Your task to perform on an android device: toggle notifications settings in the gmail app Image 0: 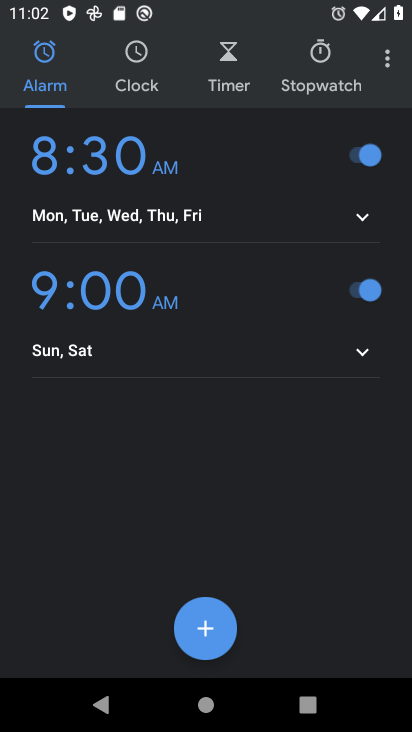
Step 0: press back button
Your task to perform on an android device: toggle notifications settings in the gmail app Image 1: 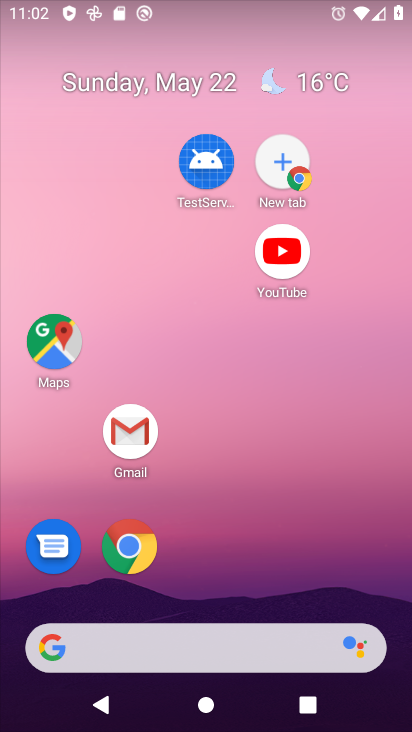
Step 1: drag from (336, 680) to (192, 0)
Your task to perform on an android device: toggle notifications settings in the gmail app Image 2: 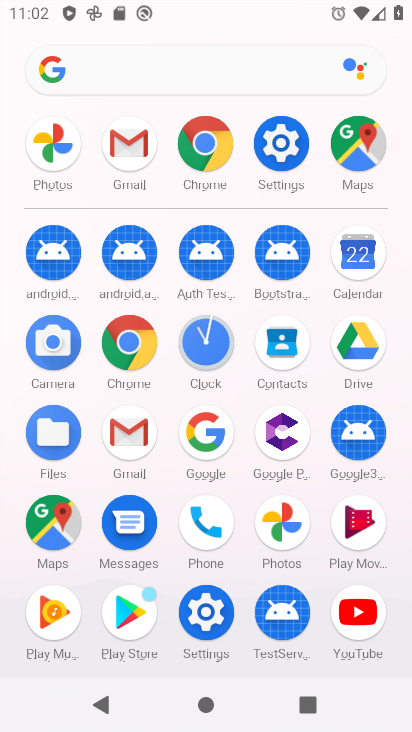
Step 2: click (126, 429)
Your task to perform on an android device: toggle notifications settings in the gmail app Image 3: 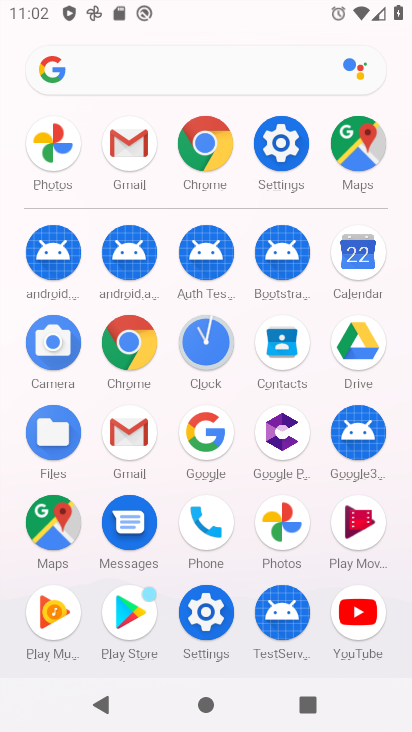
Step 3: click (126, 429)
Your task to perform on an android device: toggle notifications settings in the gmail app Image 4: 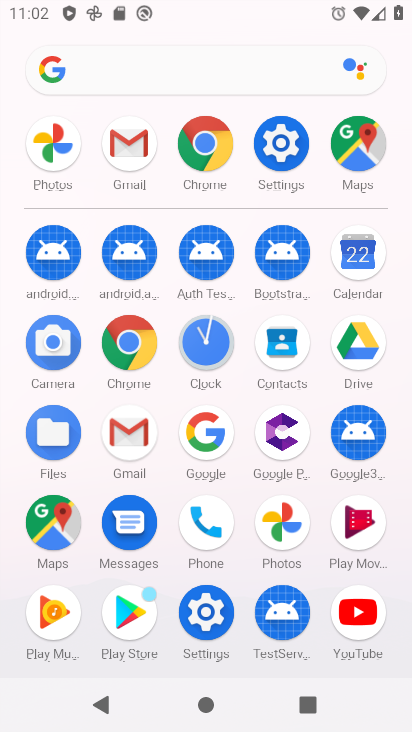
Step 4: click (126, 429)
Your task to perform on an android device: toggle notifications settings in the gmail app Image 5: 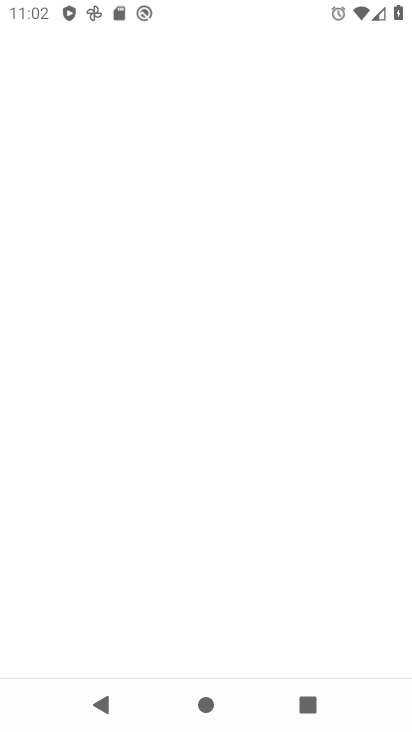
Step 5: click (126, 429)
Your task to perform on an android device: toggle notifications settings in the gmail app Image 6: 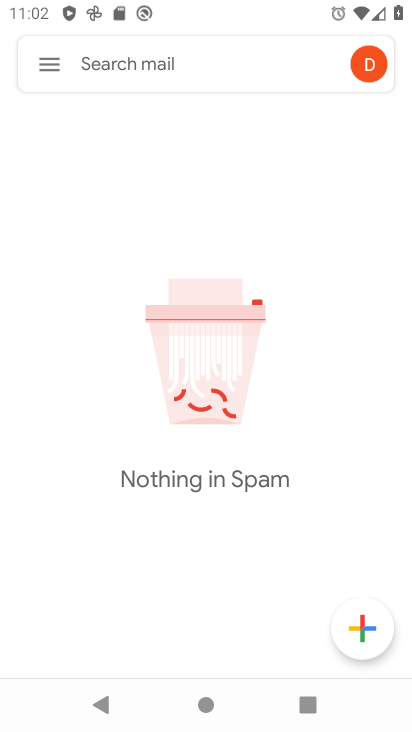
Step 6: press back button
Your task to perform on an android device: toggle notifications settings in the gmail app Image 7: 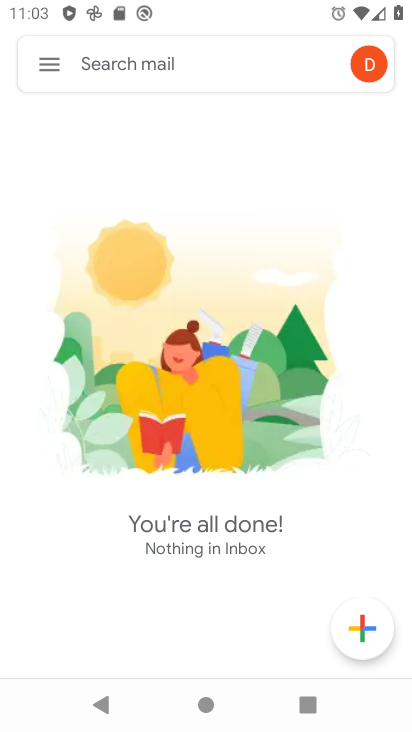
Step 7: press home button
Your task to perform on an android device: toggle notifications settings in the gmail app Image 8: 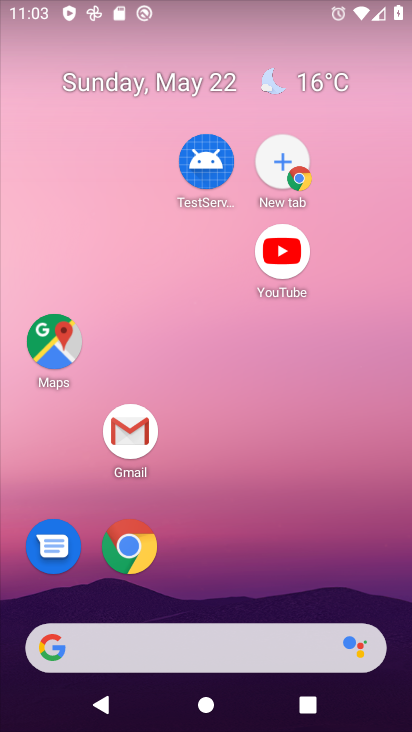
Step 8: drag from (249, 654) to (191, 126)
Your task to perform on an android device: toggle notifications settings in the gmail app Image 9: 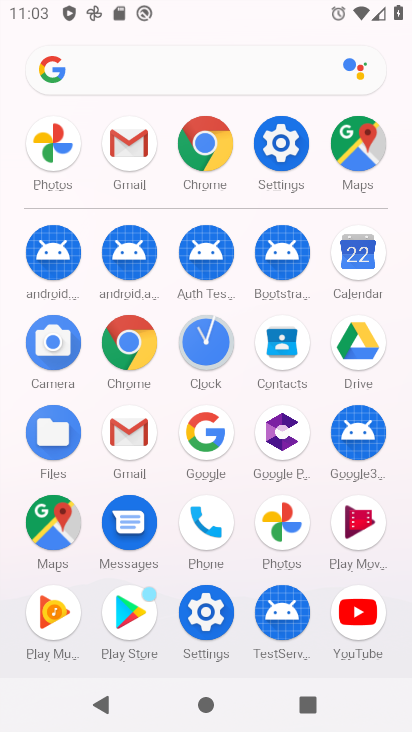
Step 9: click (117, 434)
Your task to perform on an android device: toggle notifications settings in the gmail app Image 10: 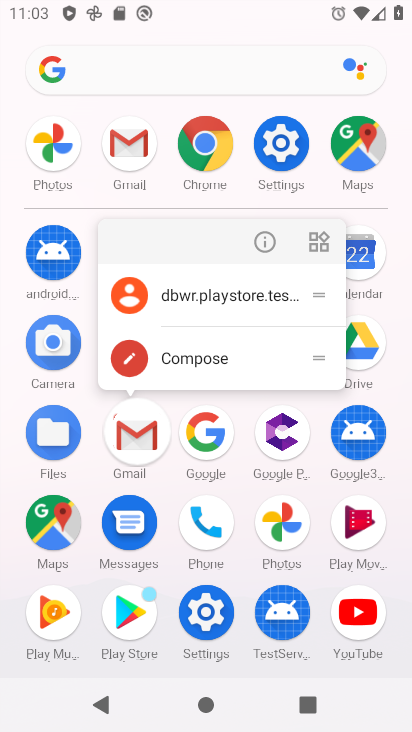
Step 10: click (128, 428)
Your task to perform on an android device: toggle notifications settings in the gmail app Image 11: 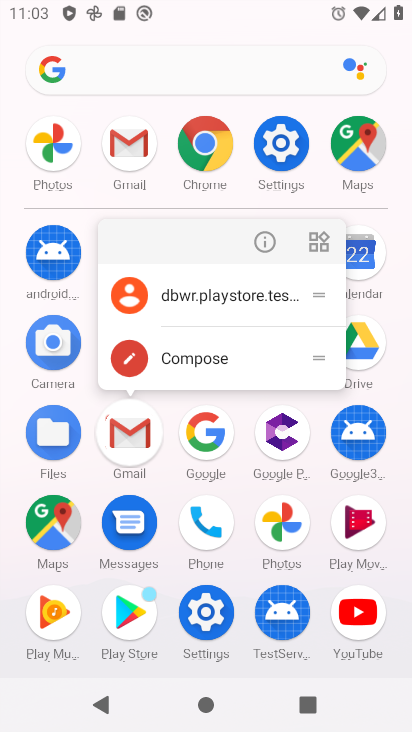
Step 11: click (128, 428)
Your task to perform on an android device: toggle notifications settings in the gmail app Image 12: 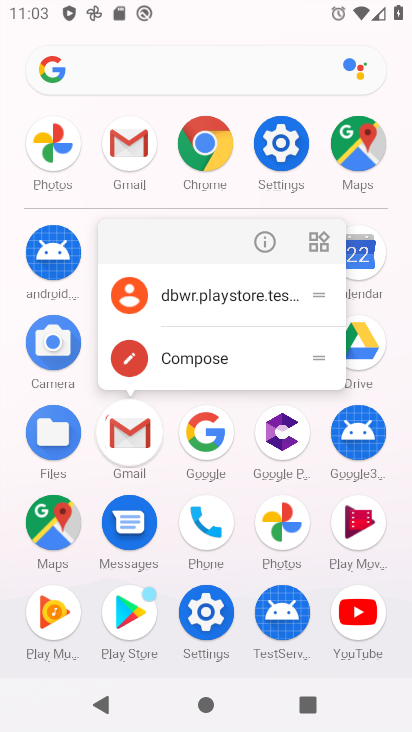
Step 12: click (129, 427)
Your task to perform on an android device: toggle notifications settings in the gmail app Image 13: 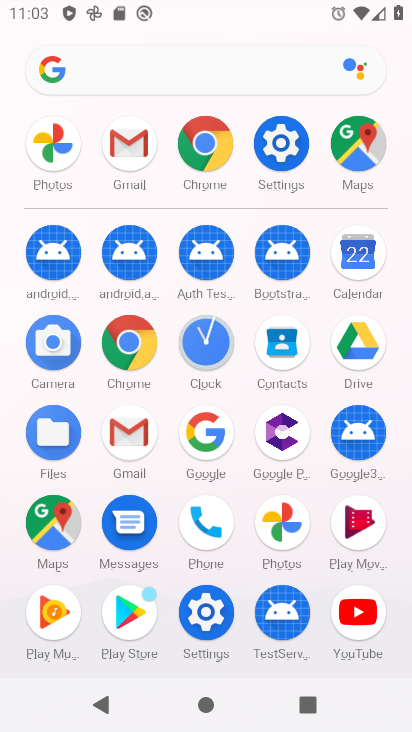
Step 13: click (130, 426)
Your task to perform on an android device: toggle notifications settings in the gmail app Image 14: 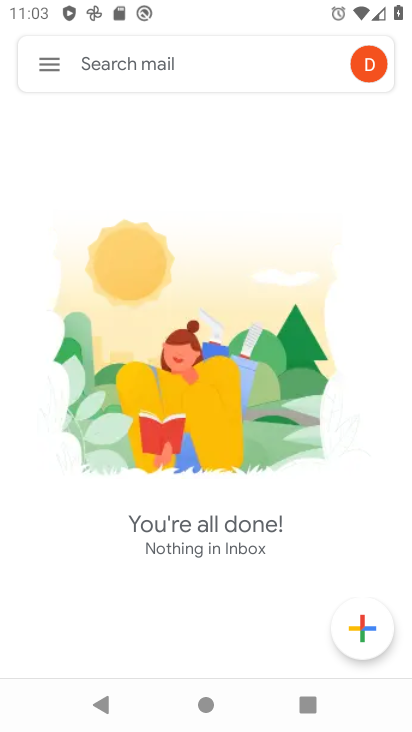
Step 14: click (44, 62)
Your task to perform on an android device: toggle notifications settings in the gmail app Image 15: 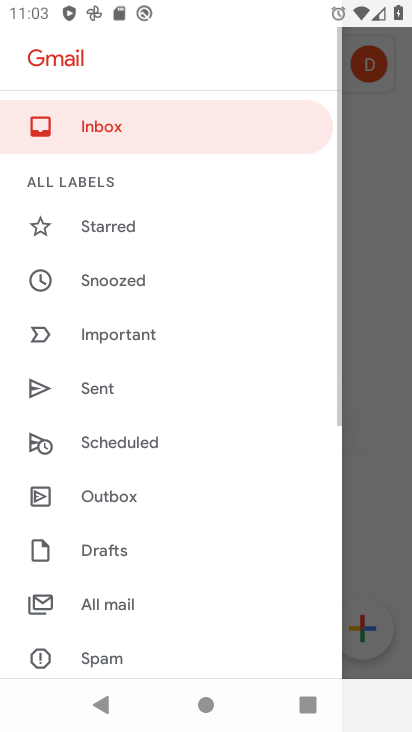
Step 15: drag from (193, 535) to (205, 79)
Your task to perform on an android device: toggle notifications settings in the gmail app Image 16: 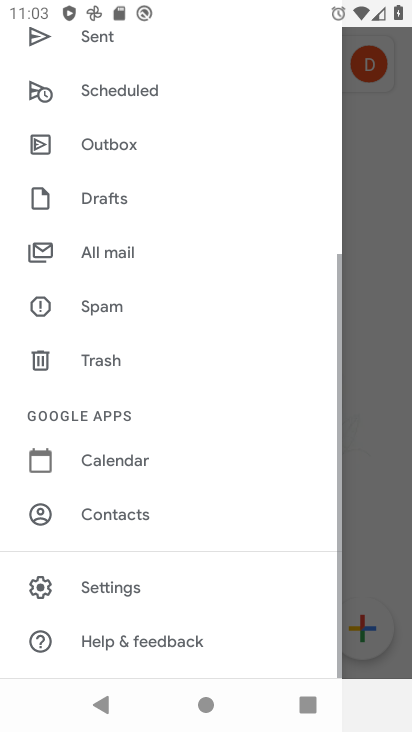
Step 16: drag from (188, 512) to (238, 36)
Your task to perform on an android device: toggle notifications settings in the gmail app Image 17: 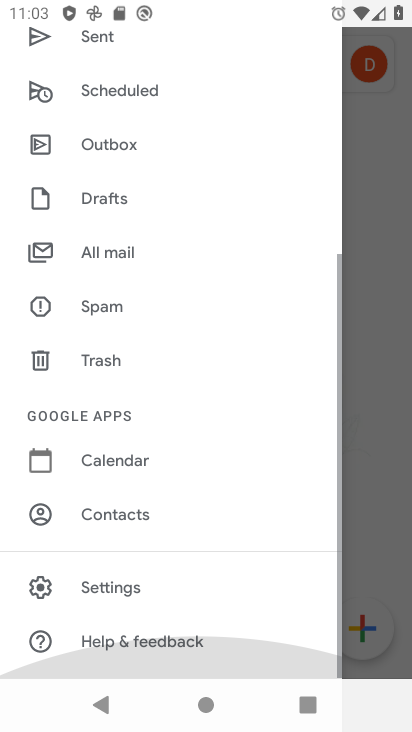
Step 17: drag from (171, 473) to (195, 78)
Your task to perform on an android device: toggle notifications settings in the gmail app Image 18: 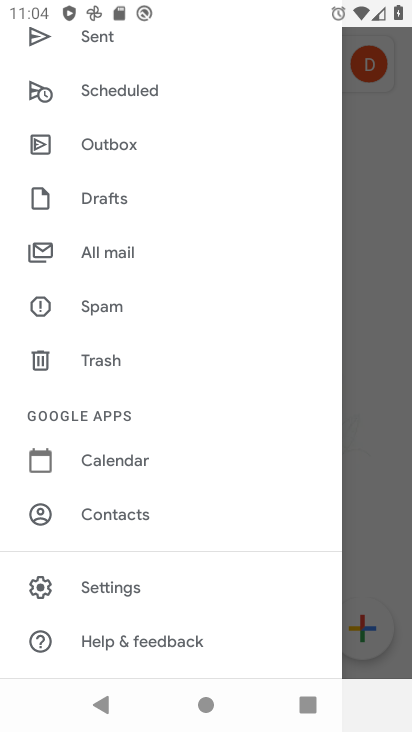
Step 18: click (103, 585)
Your task to perform on an android device: toggle notifications settings in the gmail app Image 19: 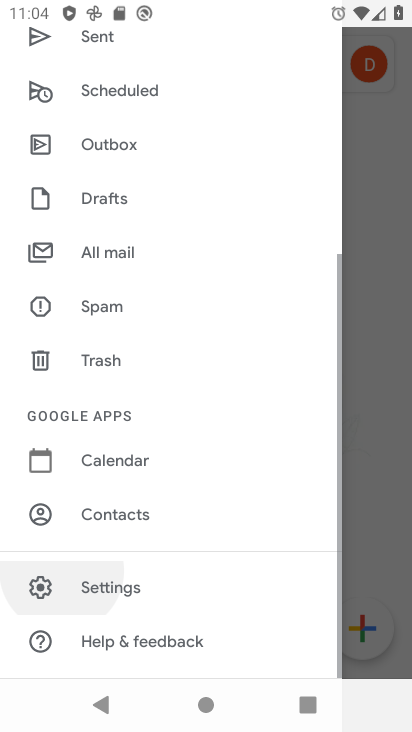
Step 19: click (103, 585)
Your task to perform on an android device: toggle notifications settings in the gmail app Image 20: 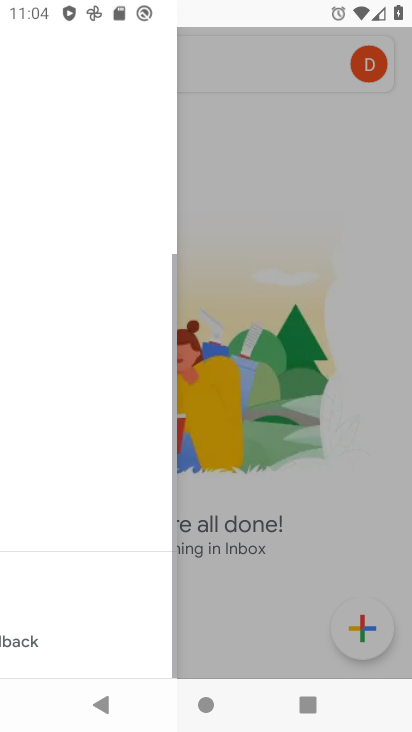
Step 20: click (102, 578)
Your task to perform on an android device: toggle notifications settings in the gmail app Image 21: 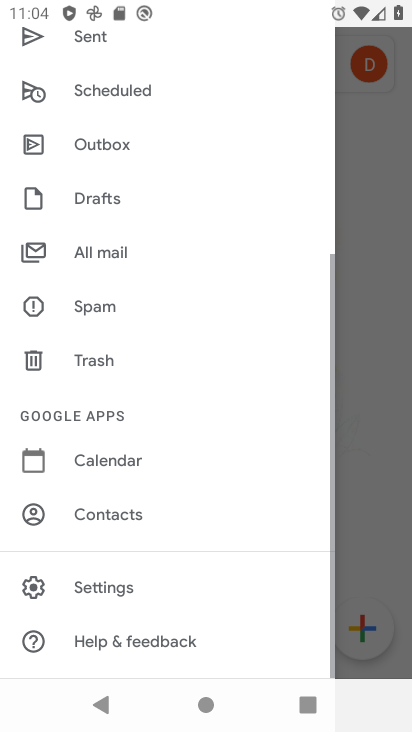
Step 21: click (102, 578)
Your task to perform on an android device: toggle notifications settings in the gmail app Image 22: 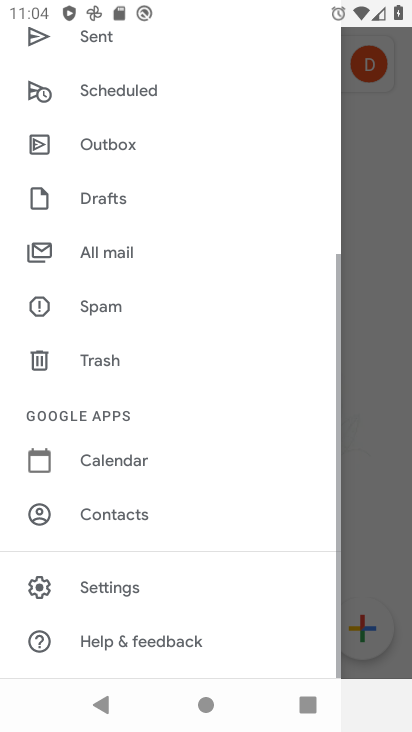
Step 22: click (102, 578)
Your task to perform on an android device: toggle notifications settings in the gmail app Image 23: 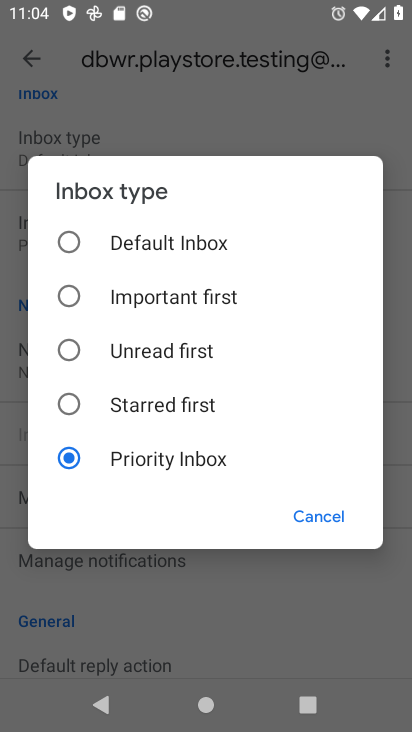
Step 23: click (317, 510)
Your task to perform on an android device: toggle notifications settings in the gmail app Image 24: 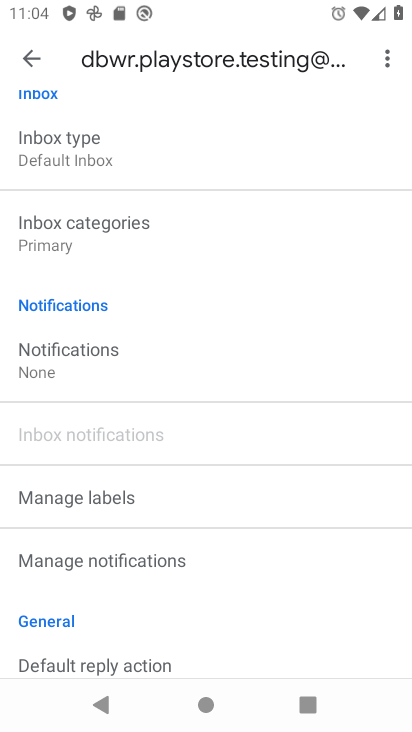
Step 24: click (58, 362)
Your task to perform on an android device: toggle notifications settings in the gmail app Image 25: 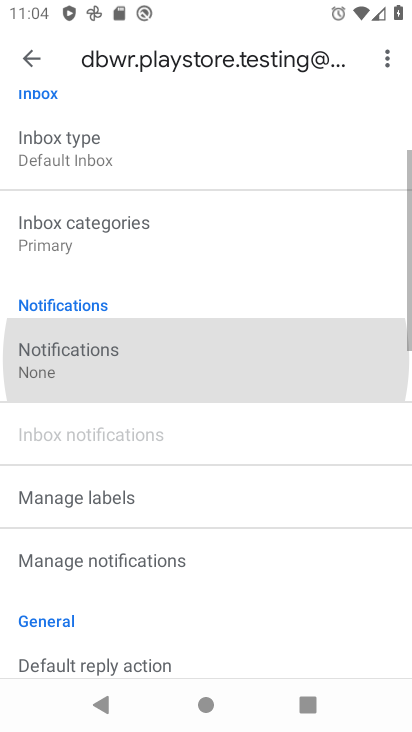
Step 25: click (59, 361)
Your task to perform on an android device: toggle notifications settings in the gmail app Image 26: 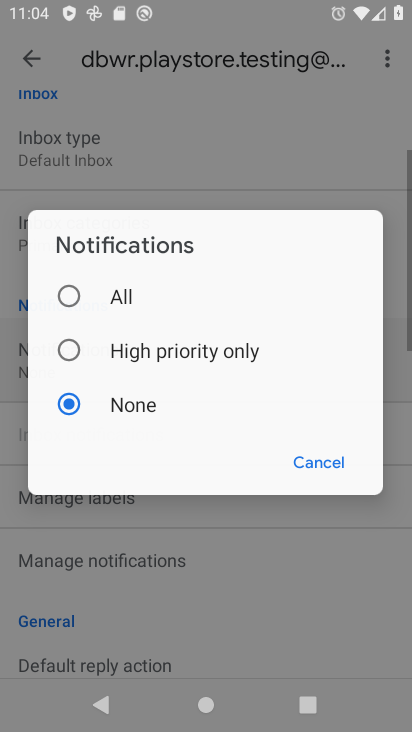
Step 26: click (60, 360)
Your task to perform on an android device: toggle notifications settings in the gmail app Image 27: 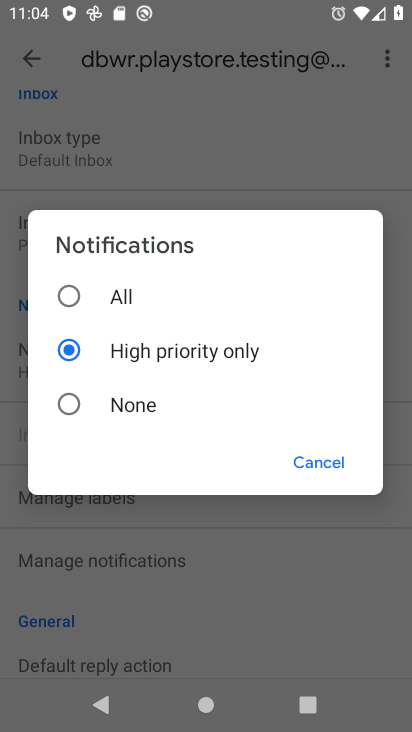
Step 27: click (63, 292)
Your task to perform on an android device: toggle notifications settings in the gmail app Image 28: 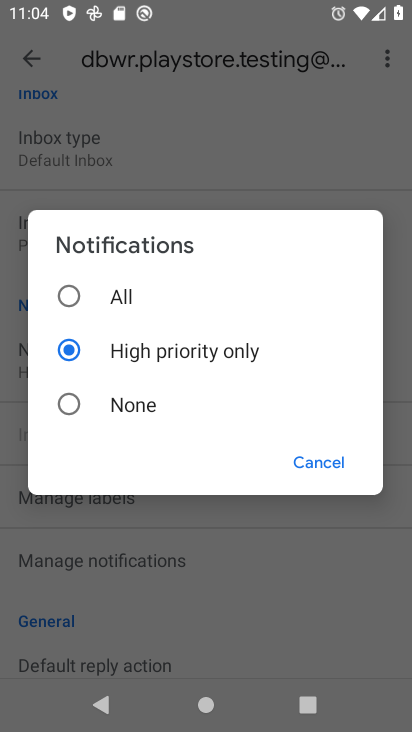
Step 28: click (66, 297)
Your task to perform on an android device: toggle notifications settings in the gmail app Image 29: 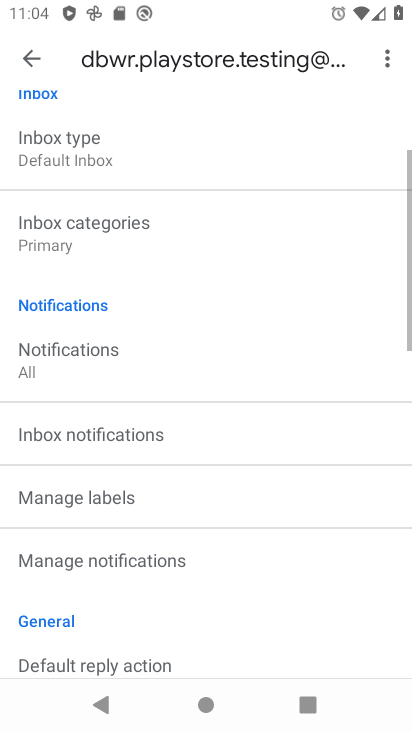
Step 29: click (66, 299)
Your task to perform on an android device: toggle notifications settings in the gmail app Image 30: 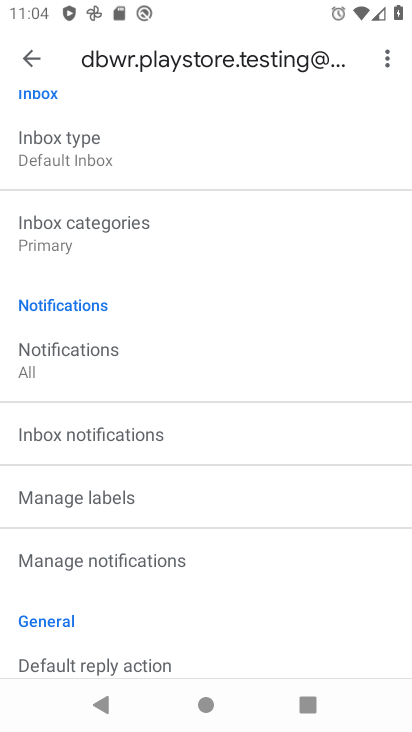
Step 30: task complete